Your task to perform on an android device: Go to notification settings Image 0: 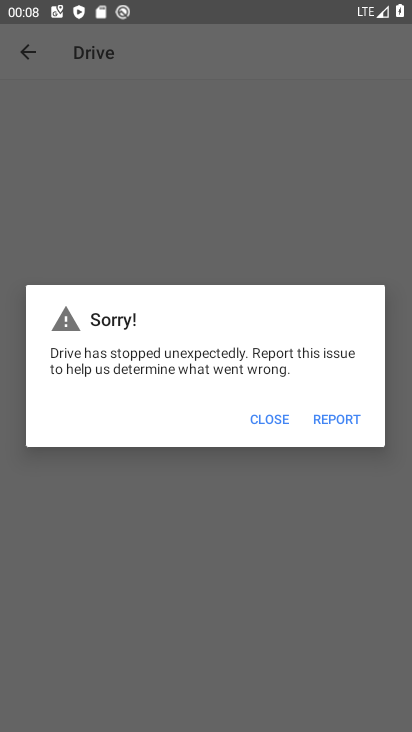
Step 0: press home button
Your task to perform on an android device: Go to notification settings Image 1: 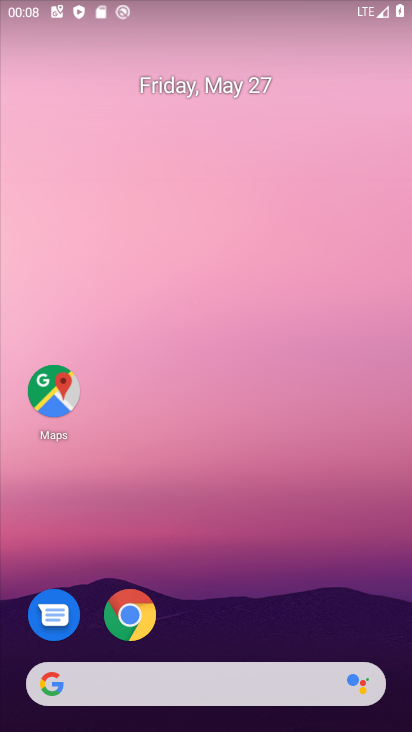
Step 1: drag from (327, 545) to (341, 53)
Your task to perform on an android device: Go to notification settings Image 2: 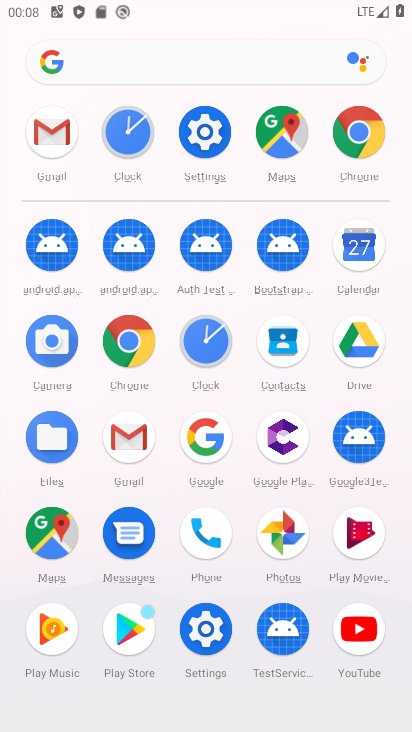
Step 2: click (216, 636)
Your task to perform on an android device: Go to notification settings Image 3: 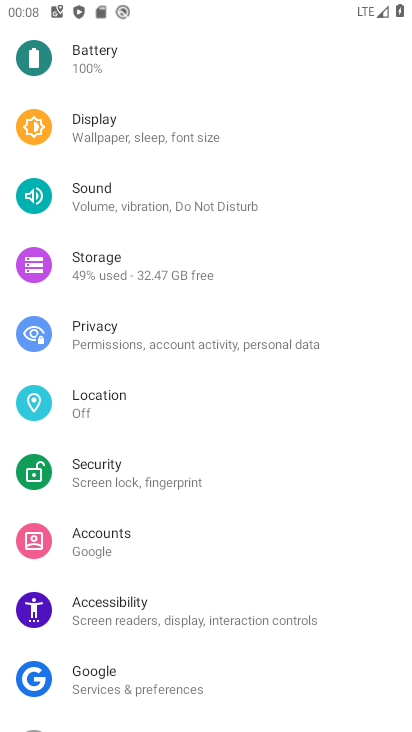
Step 3: drag from (155, 155) to (151, 539)
Your task to perform on an android device: Go to notification settings Image 4: 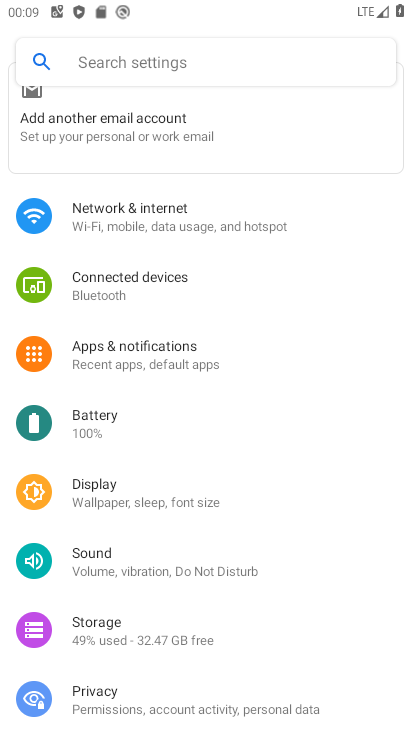
Step 4: click (151, 336)
Your task to perform on an android device: Go to notification settings Image 5: 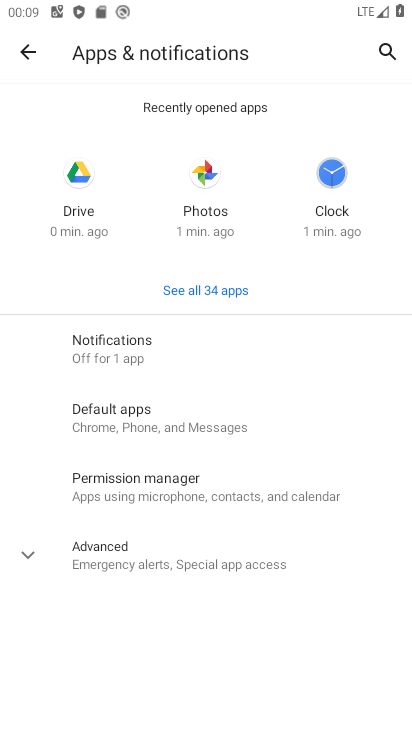
Step 5: task complete